Your task to perform on an android device: Open Reddit.com Image 0: 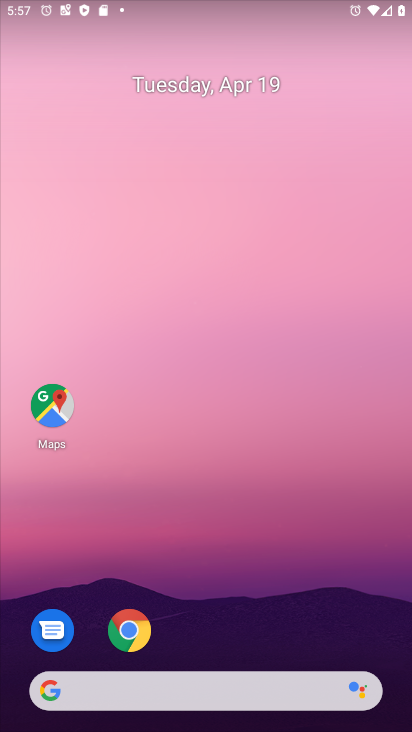
Step 0: click (245, 645)
Your task to perform on an android device: Open Reddit.com Image 1: 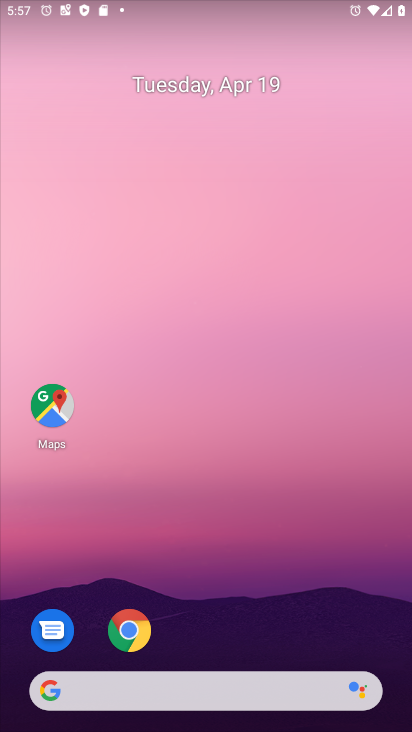
Step 1: click (110, 629)
Your task to perform on an android device: Open Reddit.com Image 2: 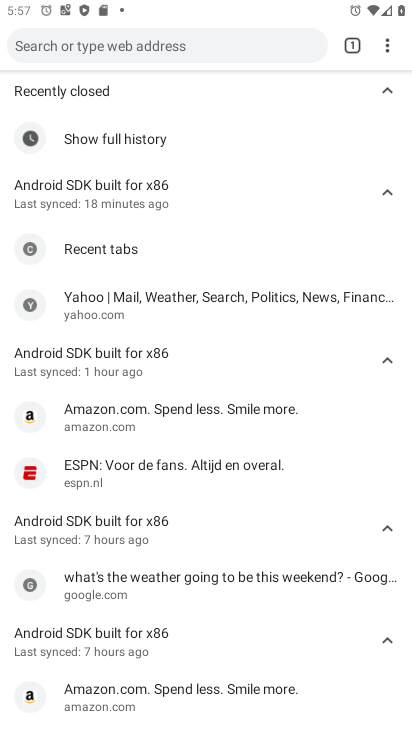
Step 2: click (217, 42)
Your task to perform on an android device: Open Reddit.com Image 3: 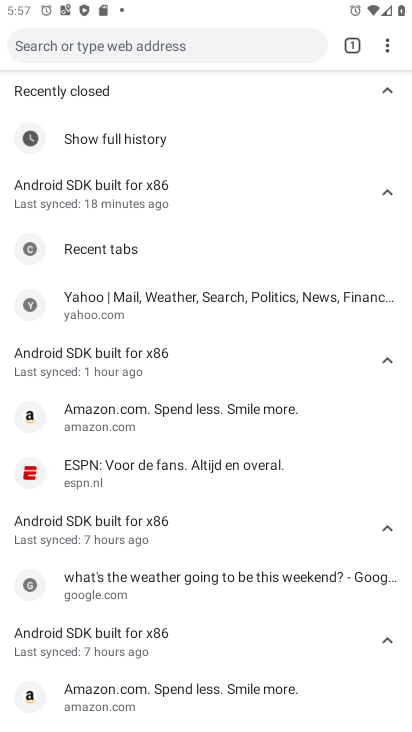
Step 3: click (217, 42)
Your task to perform on an android device: Open Reddit.com Image 4: 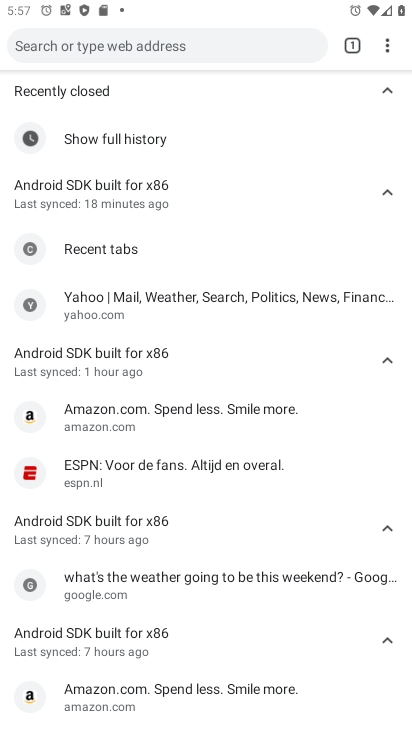
Step 4: click (207, 46)
Your task to perform on an android device: Open Reddit.com Image 5: 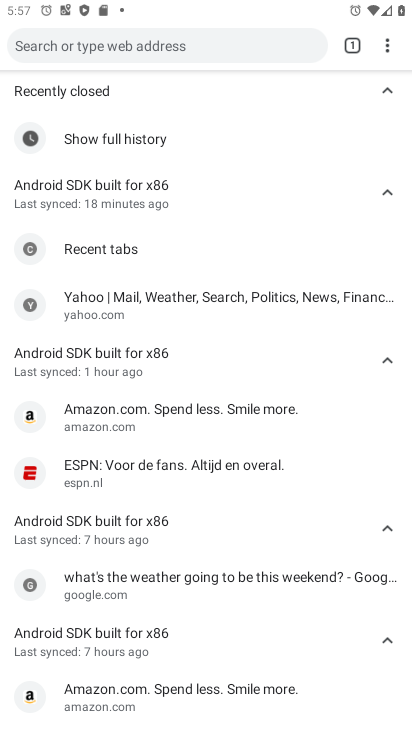
Step 5: click (207, 46)
Your task to perform on an android device: Open Reddit.com Image 6: 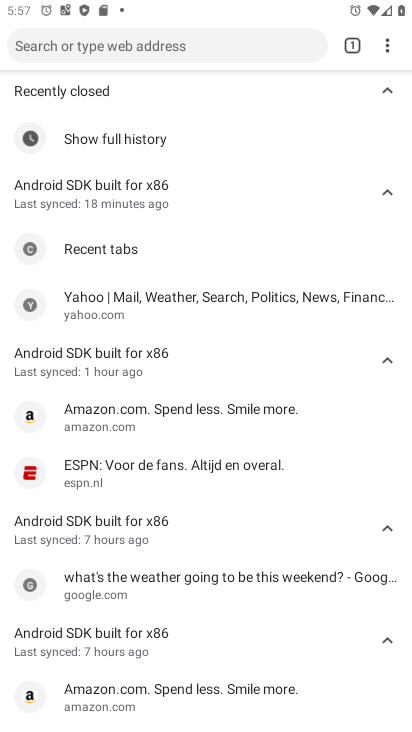
Step 6: click (207, 46)
Your task to perform on an android device: Open Reddit.com Image 7: 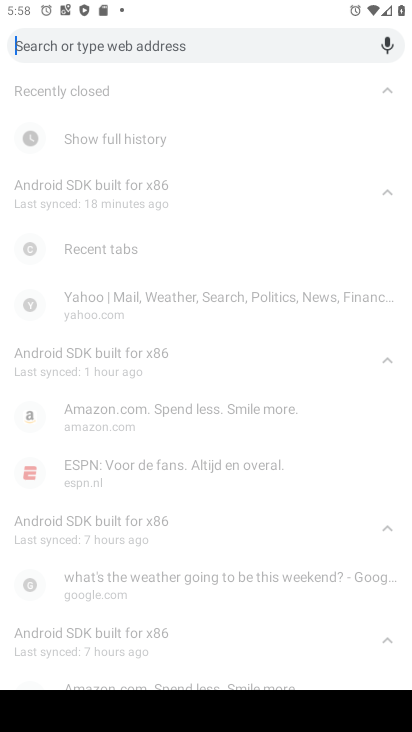
Step 7: type "Reddit.com"
Your task to perform on an android device: Open Reddit.com Image 8: 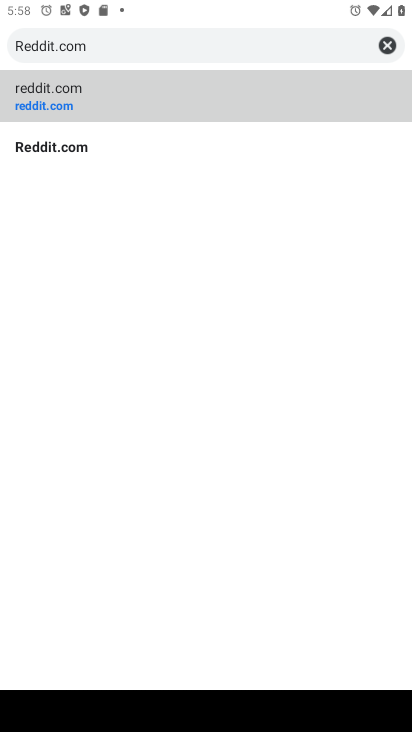
Step 8: click (267, 102)
Your task to perform on an android device: Open Reddit.com Image 9: 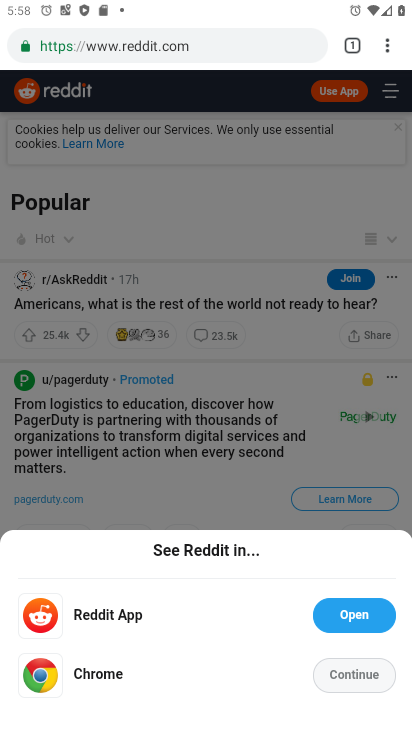
Step 9: task complete